Your task to perform on an android device: Open Android settings Image 0: 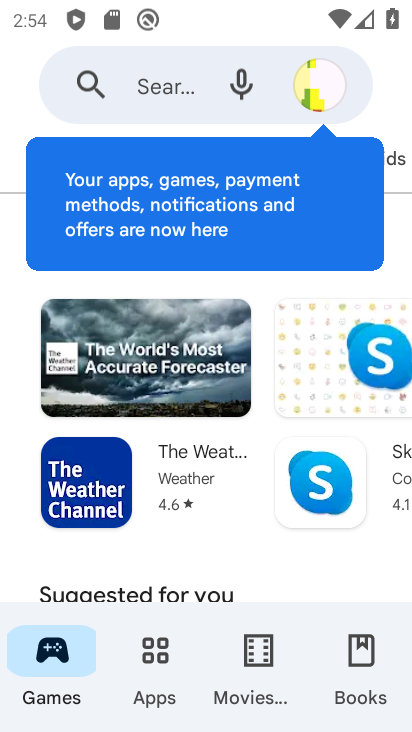
Step 0: press home button
Your task to perform on an android device: Open Android settings Image 1: 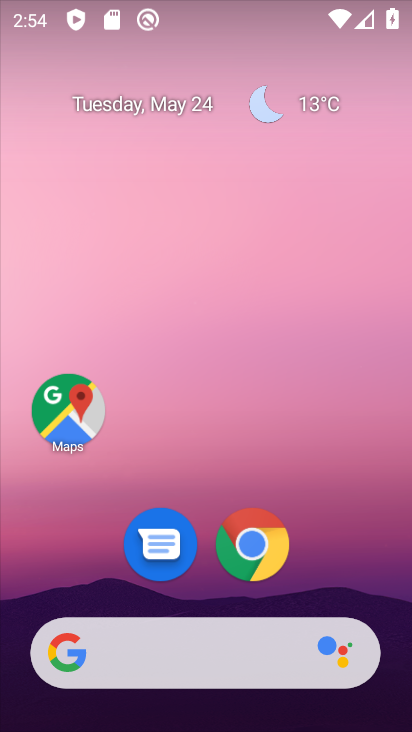
Step 1: drag from (372, 556) to (247, 21)
Your task to perform on an android device: Open Android settings Image 2: 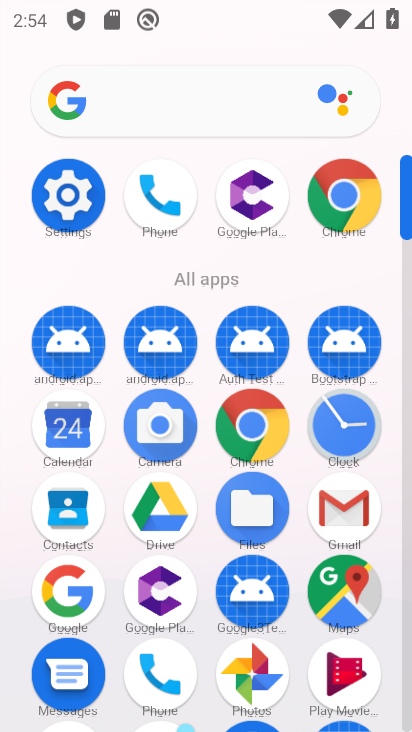
Step 2: click (50, 240)
Your task to perform on an android device: Open Android settings Image 3: 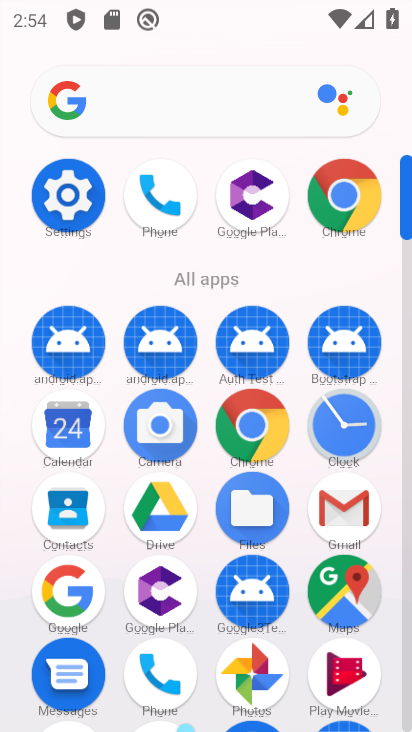
Step 3: click (54, 238)
Your task to perform on an android device: Open Android settings Image 4: 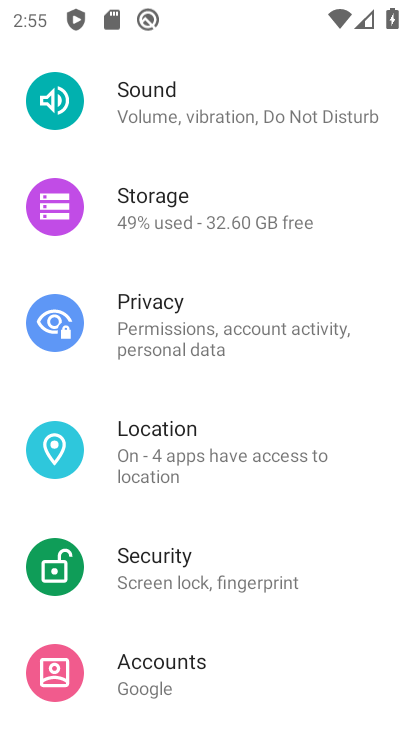
Step 4: task complete